Your task to perform on an android device: Open Google Chrome Image 0: 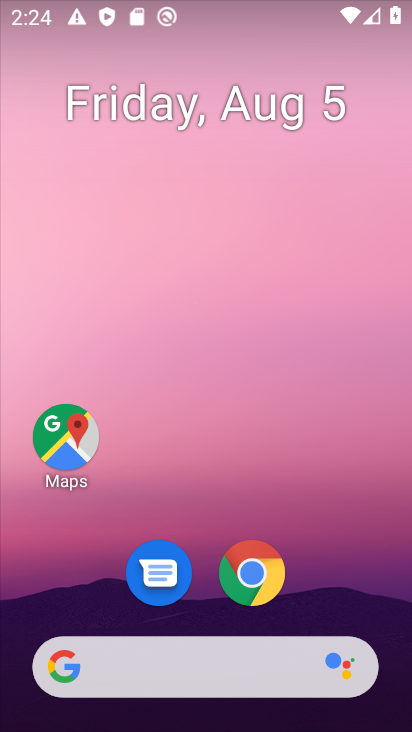
Step 0: click (246, 589)
Your task to perform on an android device: Open Google Chrome Image 1: 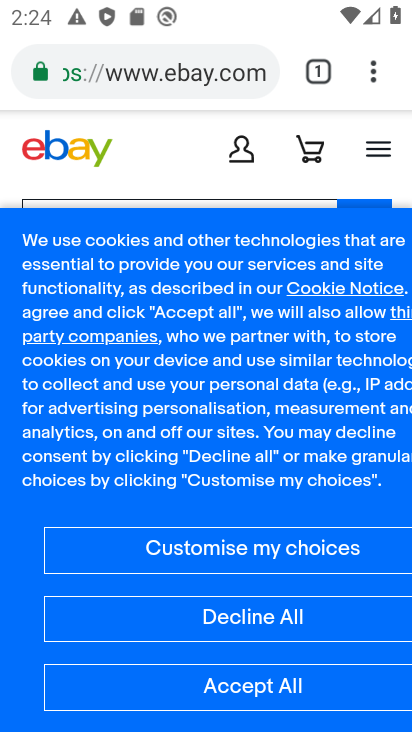
Step 1: task complete